Your task to perform on an android device: manage bookmarks in the chrome app Image 0: 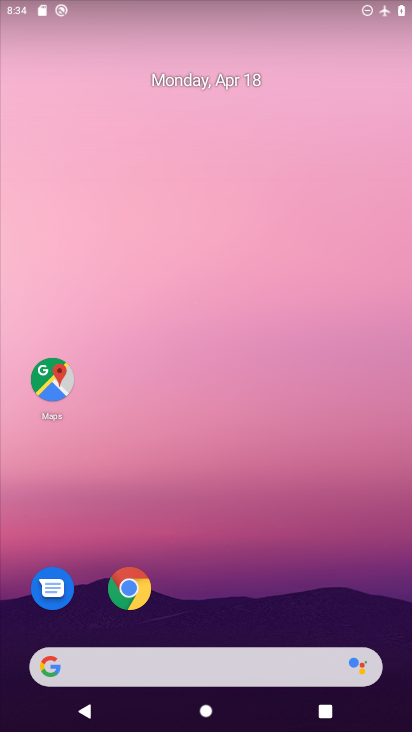
Step 0: click (141, 590)
Your task to perform on an android device: manage bookmarks in the chrome app Image 1: 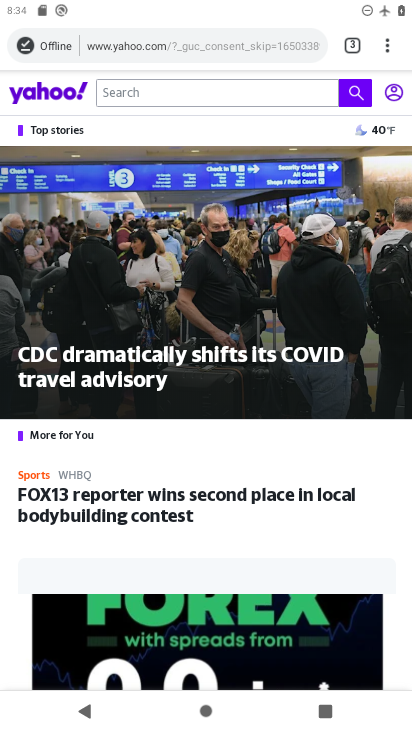
Step 1: click (385, 46)
Your task to perform on an android device: manage bookmarks in the chrome app Image 2: 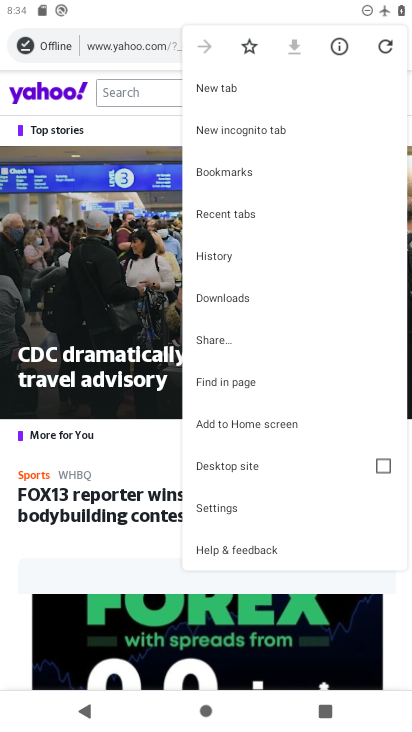
Step 2: click (254, 178)
Your task to perform on an android device: manage bookmarks in the chrome app Image 3: 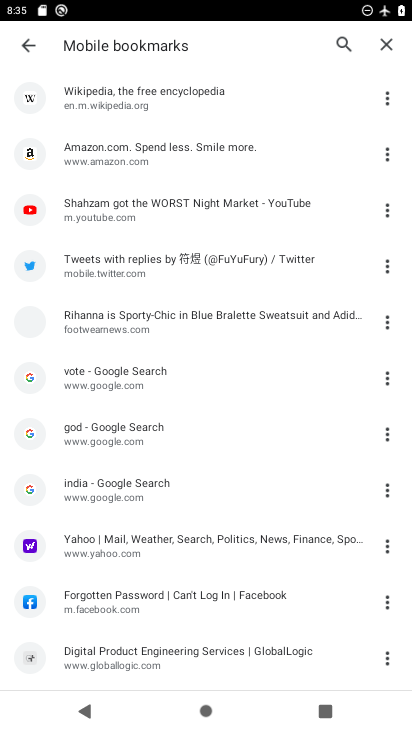
Step 3: click (384, 215)
Your task to perform on an android device: manage bookmarks in the chrome app Image 4: 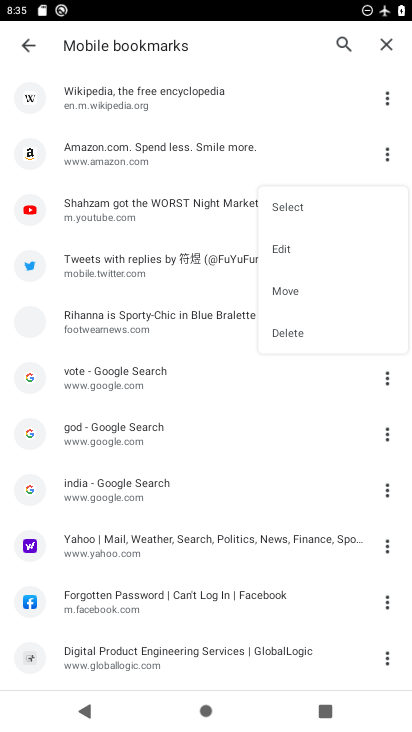
Step 4: click (321, 337)
Your task to perform on an android device: manage bookmarks in the chrome app Image 5: 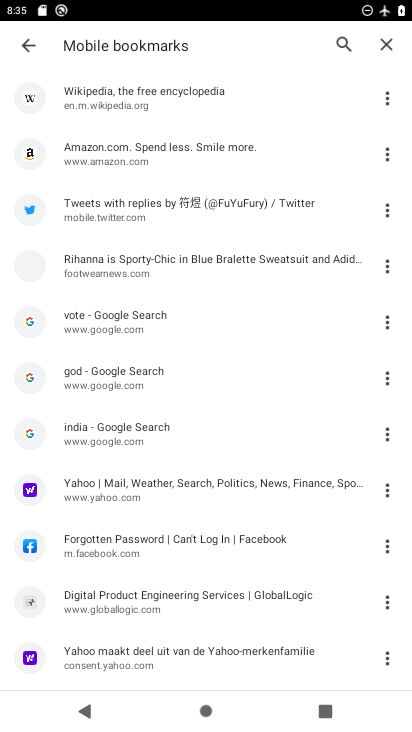
Step 5: task complete